Your task to perform on an android device: move a message to another label in the gmail app Image 0: 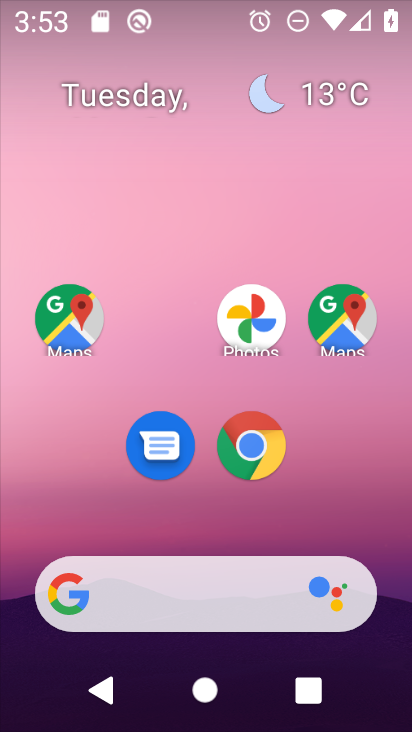
Step 0: drag from (394, 559) to (407, 245)
Your task to perform on an android device: move a message to another label in the gmail app Image 1: 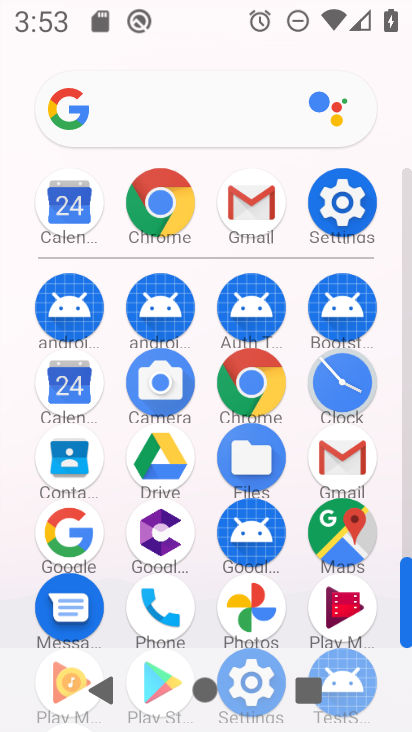
Step 1: click (368, 464)
Your task to perform on an android device: move a message to another label in the gmail app Image 2: 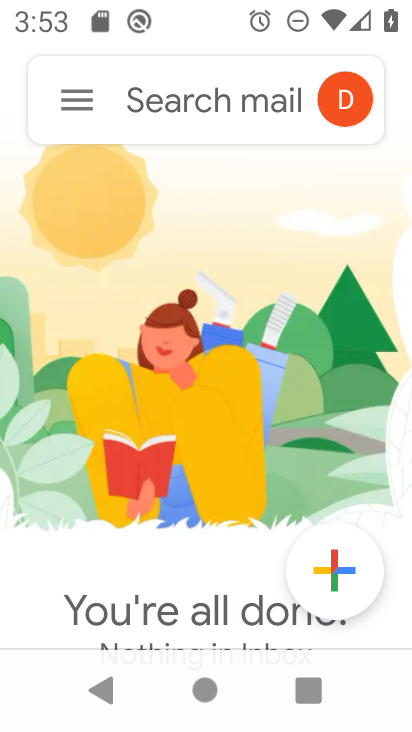
Step 2: click (82, 109)
Your task to perform on an android device: move a message to another label in the gmail app Image 3: 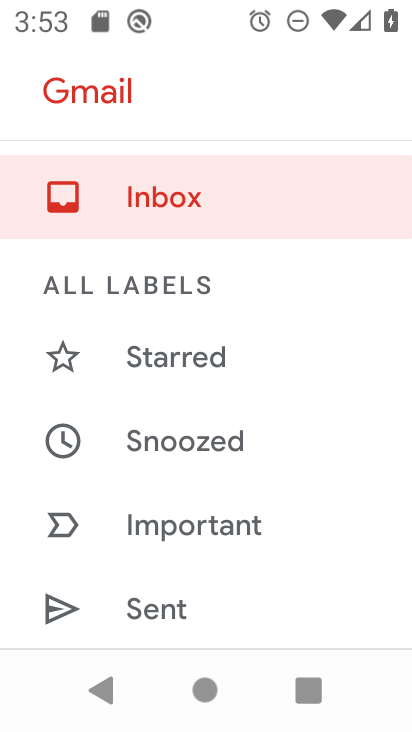
Step 3: drag from (312, 450) to (320, 396)
Your task to perform on an android device: move a message to another label in the gmail app Image 4: 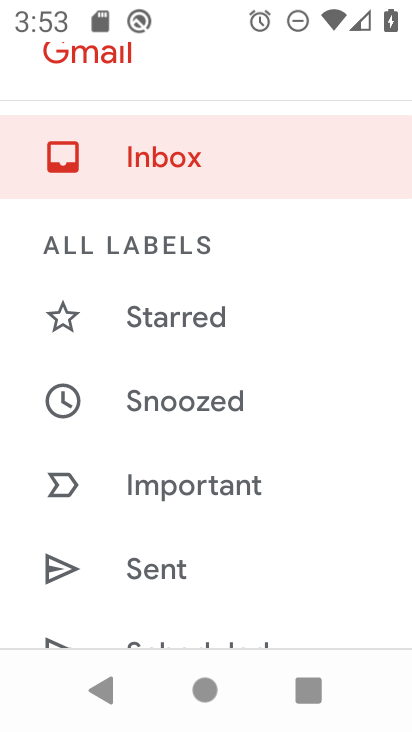
Step 4: drag from (326, 503) to (327, 438)
Your task to perform on an android device: move a message to another label in the gmail app Image 5: 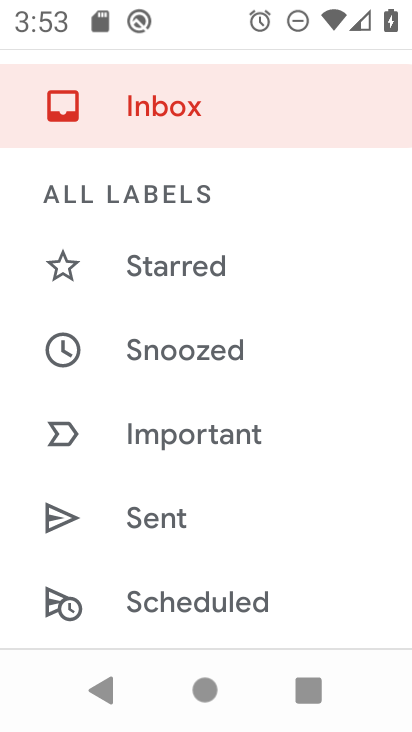
Step 5: drag from (337, 531) to (351, 457)
Your task to perform on an android device: move a message to another label in the gmail app Image 6: 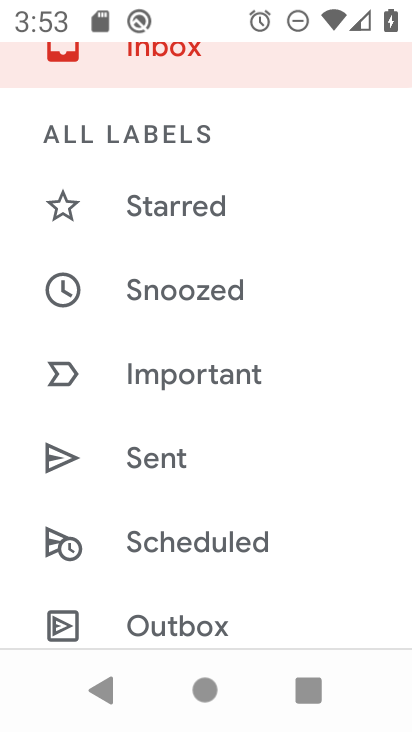
Step 6: drag from (350, 567) to (358, 499)
Your task to perform on an android device: move a message to another label in the gmail app Image 7: 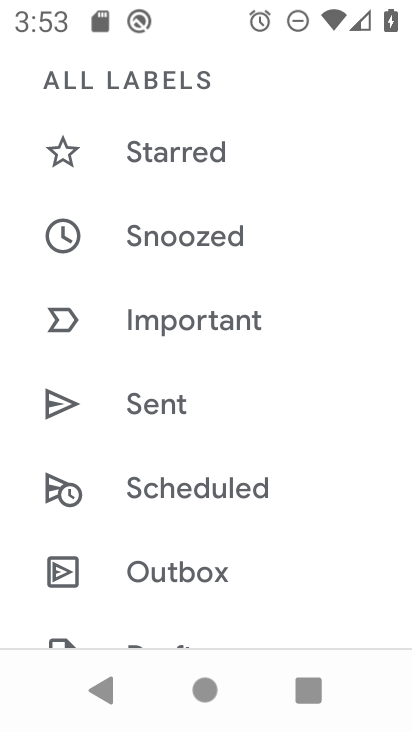
Step 7: drag from (346, 570) to (355, 493)
Your task to perform on an android device: move a message to another label in the gmail app Image 8: 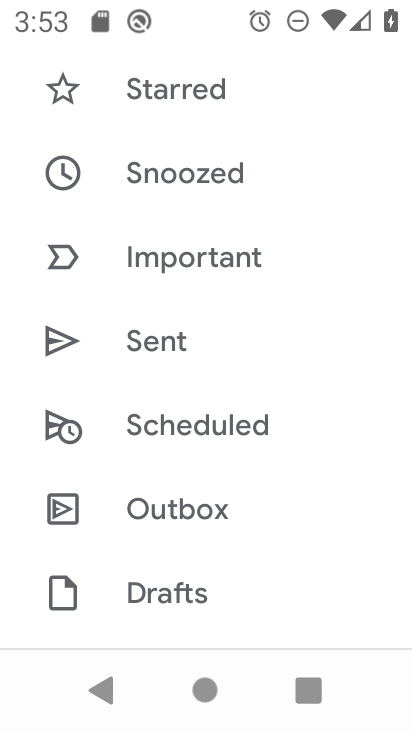
Step 8: drag from (343, 565) to (352, 485)
Your task to perform on an android device: move a message to another label in the gmail app Image 9: 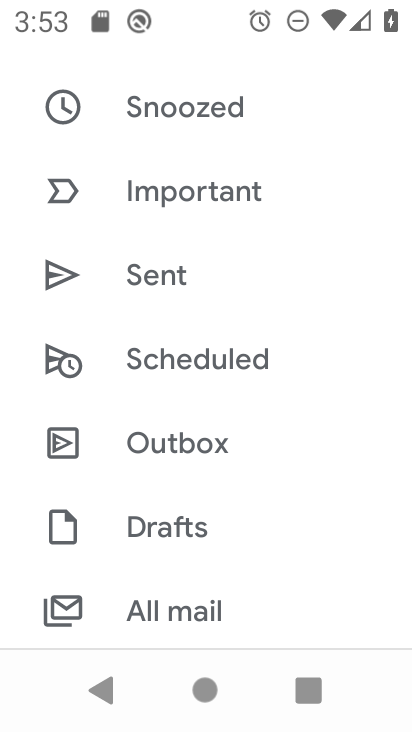
Step 9: drag from (340, 550) to (334, 490)
Your task to perform on an android device: move a message to another label in the gmail app Image 10: 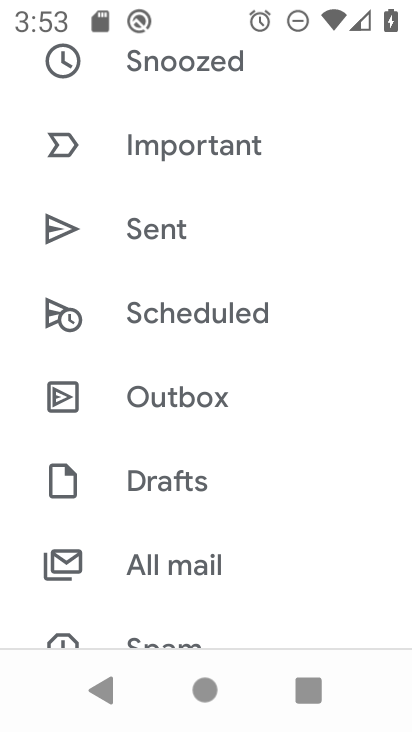
Step 10: drag from (333, 563) to (322, 483)
Your task to perform on an android device: move a message to another label in the gmail app Image 11: 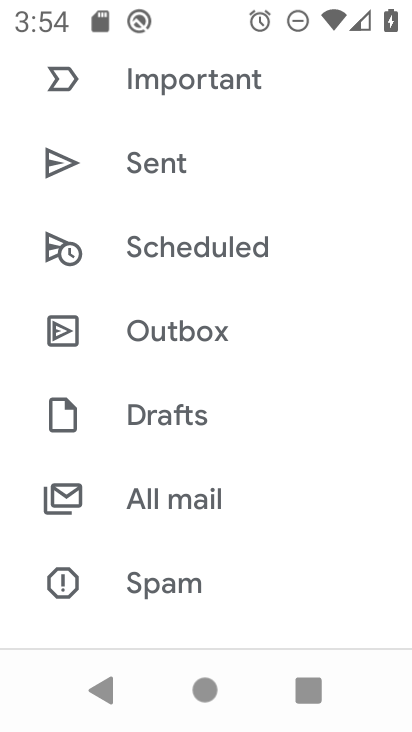
Step 11: drag from (320, 597) to (324, 491)
Your task to perform on an android device: move a message to another label in the gmail app Image 12: 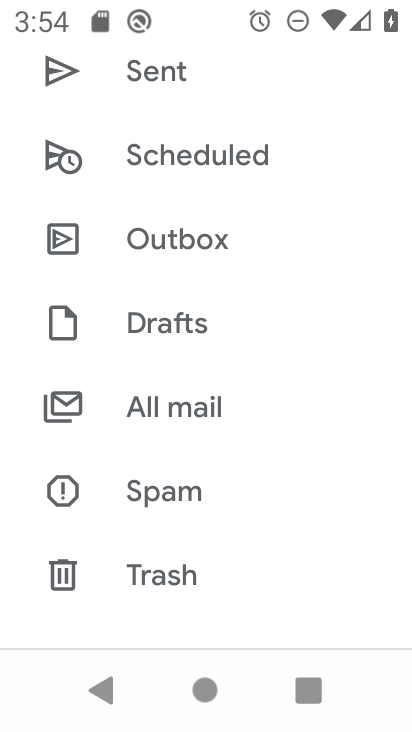
Step 12: drag from (322, 573) to (328, 477)
Your task to perform on an android device: move a message to another label in the gmail app Image 13: 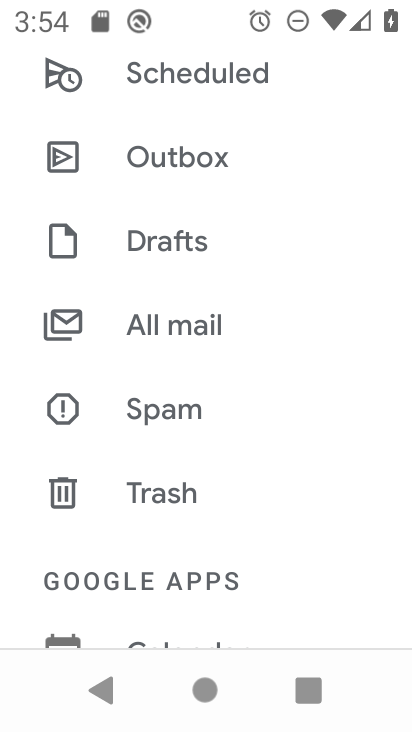
Step 13: drag from (330, 564) to (338, 430)
Your task to perform on an android device: move a message to another label in the gmail app Image 14: 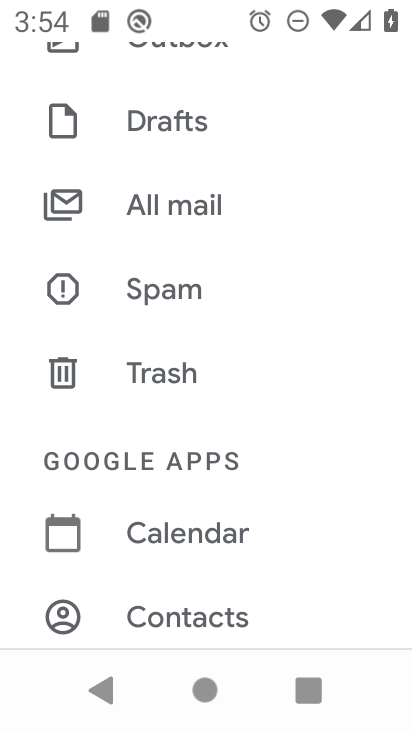
Step 14: drag from (337, 549) to (345, 414)
Your task to perform on an android device: move a message to another label in the gmail app Image 15: 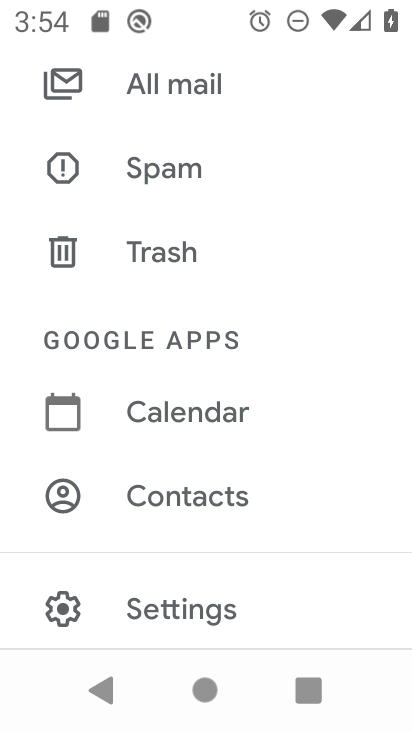
Step 15: drag from (321, 316) to (321, 400)
Your task to perform on an android device: move a message to another label in the gmail app Image 16: 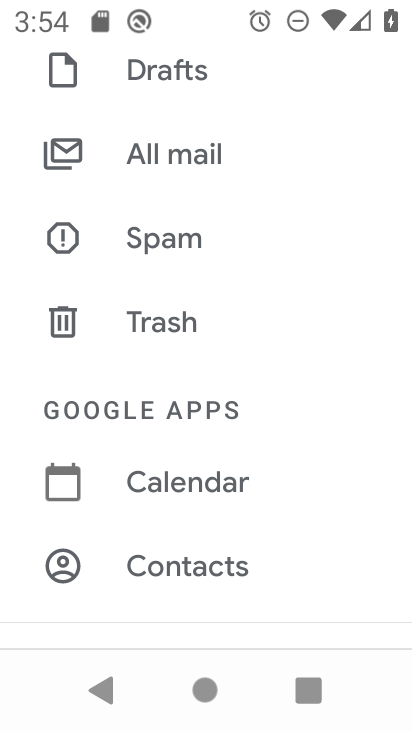
Step 16: drag from (323, 318) to (330, 414)
Your task to perform on an android device: move a message to another label in the gmail app Image 17: 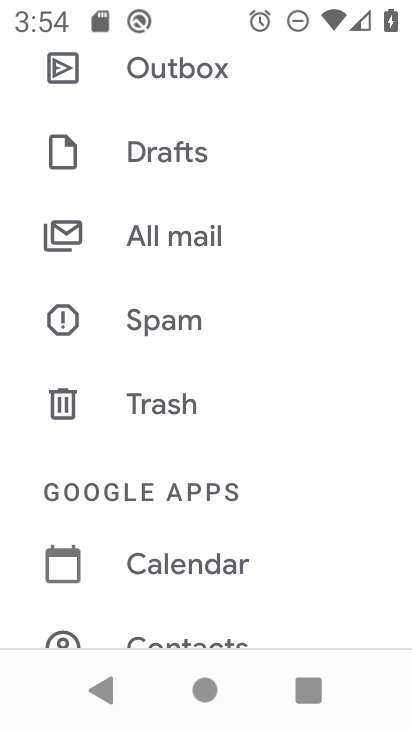
Step 17: drag from (333, 285) to (329, 362)
Your task to perform on an android device: move a message to another label in the gmail app Image 18: 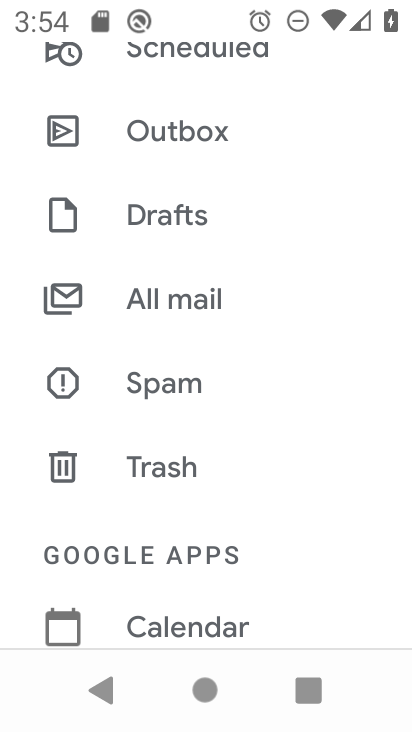
Step 18: drag from (325, 278) to (326, 348)
Your task to perform on an android device: move a message to another label in the gmail app Image 19: 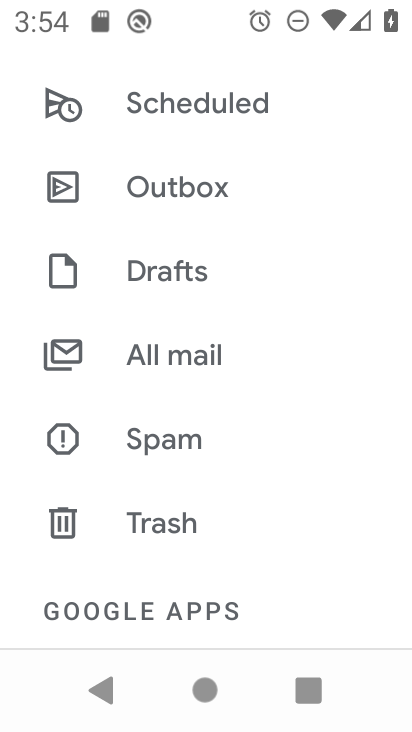
Step 19: drag from (332, 254) to (321, 335)
Your task to perform on an android device: move a message to another label in the gmail app Image 20: 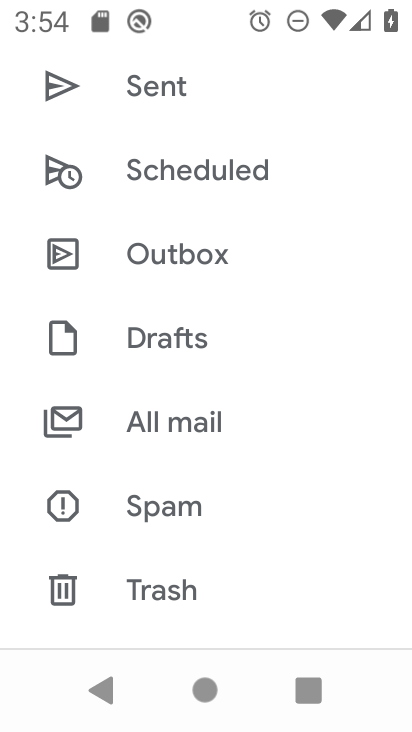
Step 20: drag from (318, 272) to (319, 351)
Your task to perform on an android device: move a message to another label in the gmail app Image 21: 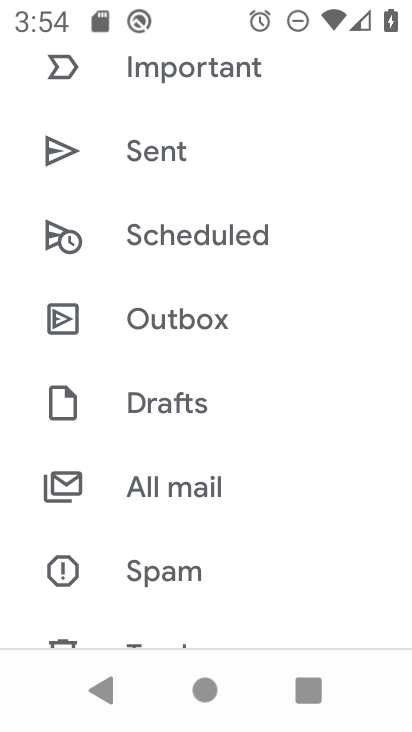
Step 21: drag from (315, 261) to (324, 334)
Your task to perform on an android device: move a message to another label in the gmail app Image 22: 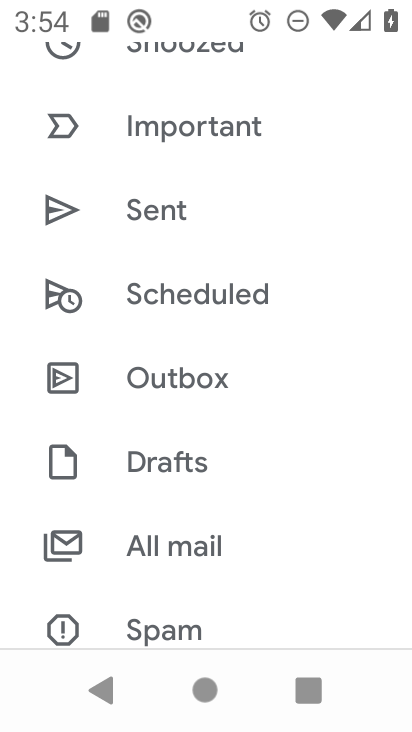
Step 22: drag from (334, 264) to (328, 341)
Your task to perform on an android device: move a message to another label in the gmail app Image 23: 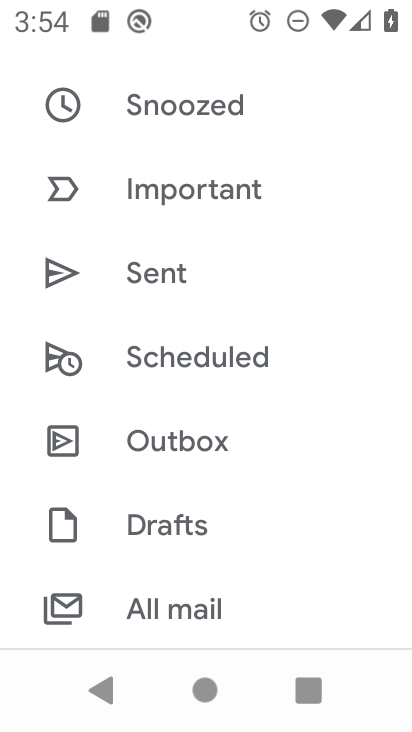
Step 23: drag from (321, 249) to (322, 327)
Your task to perform on an android device: move a message to another label in the gmail app Image 24: 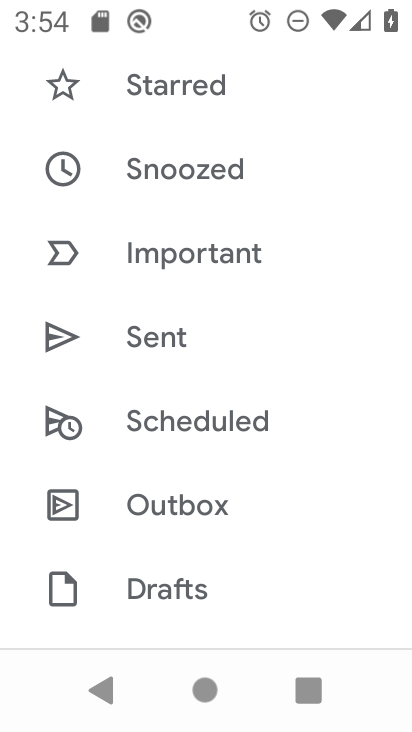
Step 24: drag from (322, 255) to (315, 336)
Your task to perform on an android device: move a message to another label in the gmail app Image 25: 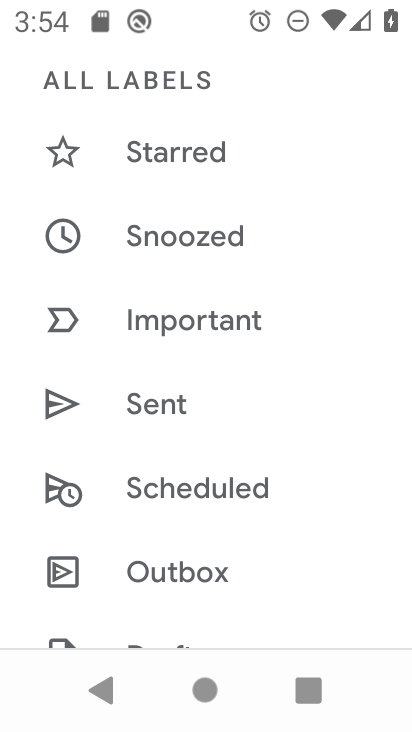
Step 25: drag from (310, 242) to (300, 342)
Your task to perform on an android device: move a message to another label in the gmail app Image 26: 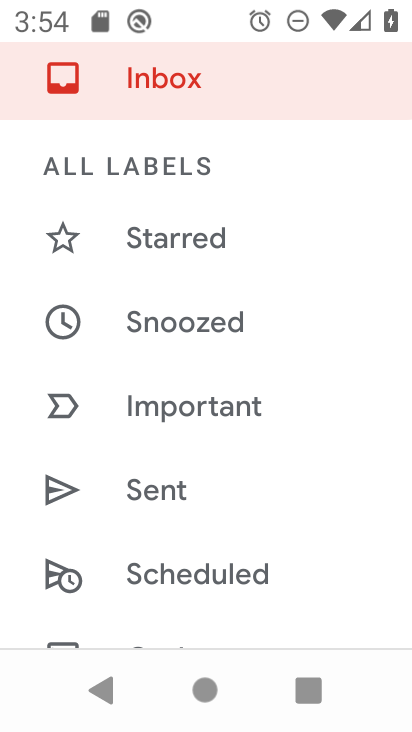
Step 26: drag from (314, 269) to (309, 337)
Your task to perform on an android device: move a message to another label in the gmail app Image 27: 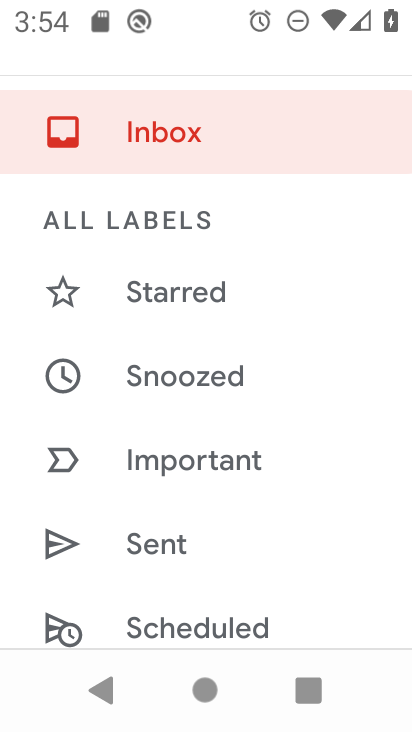
Step 27: click (260, 160)
Your task to perform on an android device: move a message to another label in the gmail app Image 28: 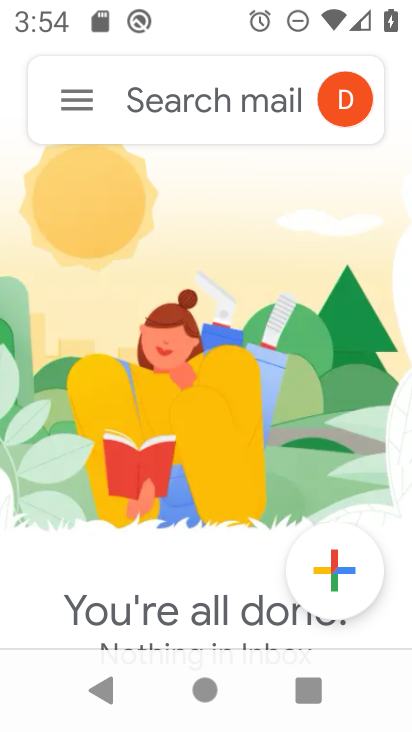
Step 28: task complete